Your task to perform on an android device: set the stopwatch Image 0: 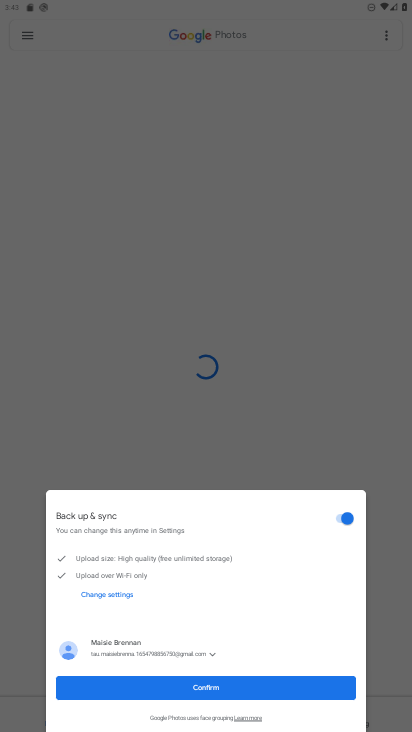
Step 0: press home button
Your task to perform on an android device: set the stopwatch Image 1: 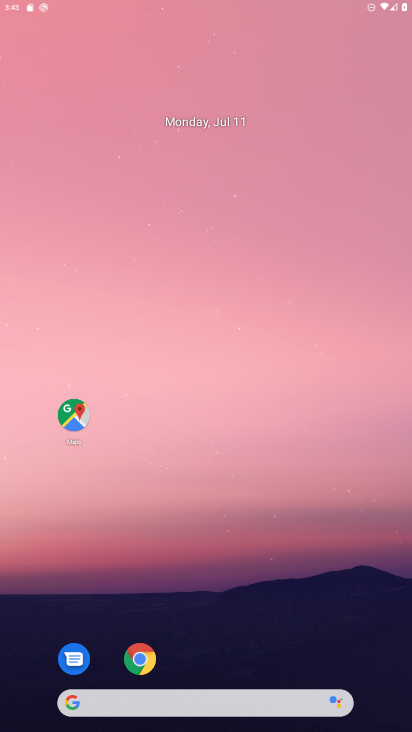
Step 1: drag from (220, 698) to (250, 259)
Your task to perform on an android device: set the stopwatch Image 2: 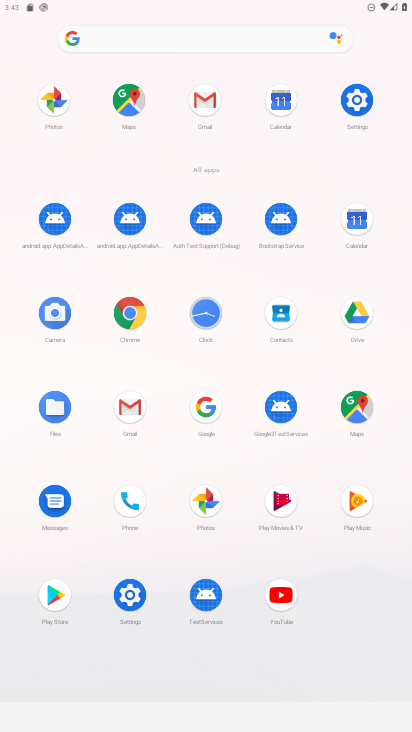
Step 2: click (196, 316)
Your task to perform on an android device: set the stopwatch Image 3: 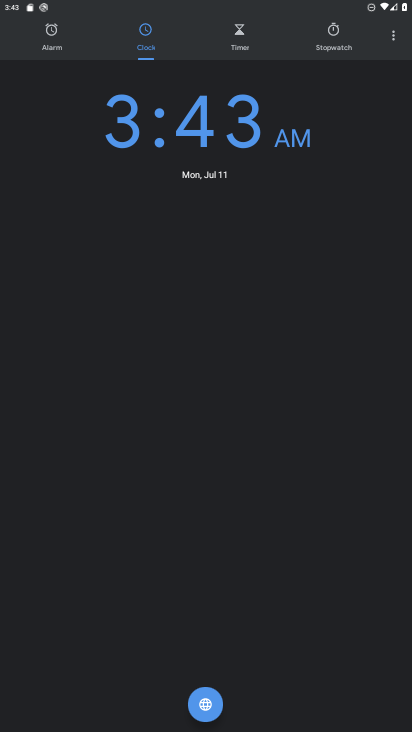
Step 3: click (331, 35)
Your task to perform on an android device: set the stopwatch Image 4: 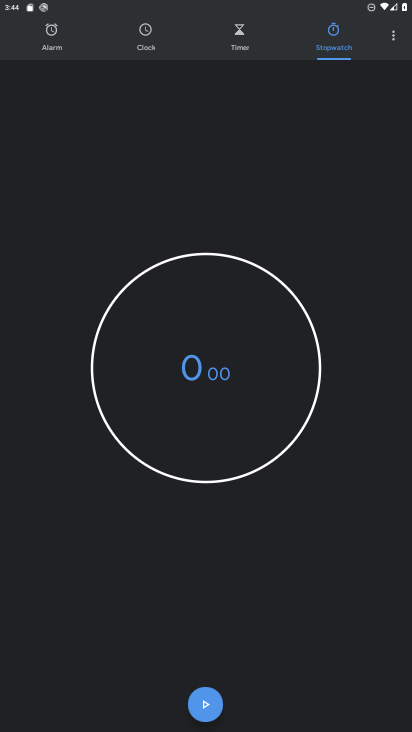
Step 4: click (219, 694)
Your task to perform on an android device: set the stopwatch Image 5: 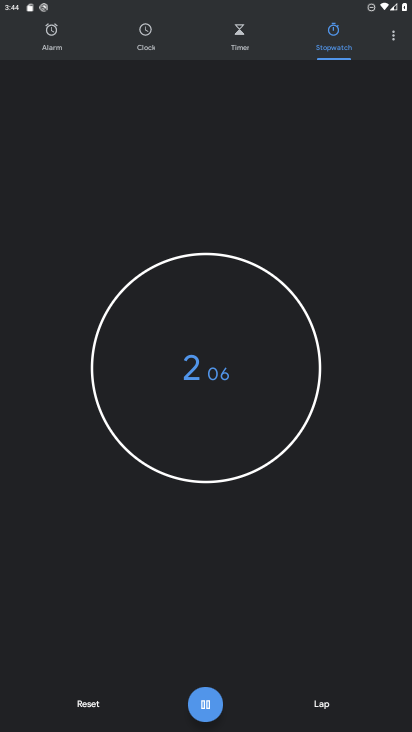
Step 5: click (204, 697)
Your task to perform on an android device: set the stopwatch Image 6: 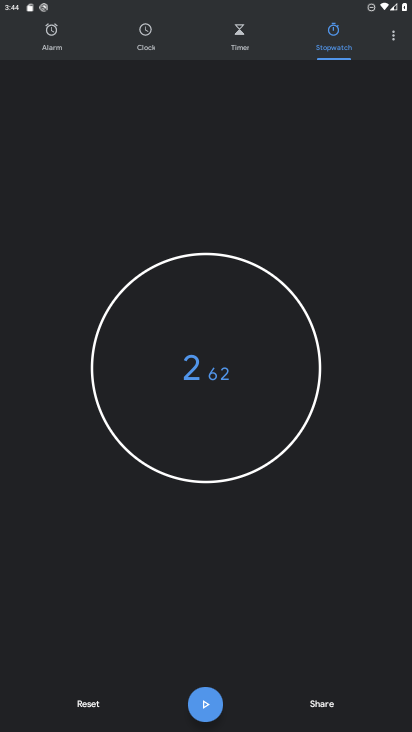
Step 6: task complete